Your task to perform on an android device: Open settings Image 0: 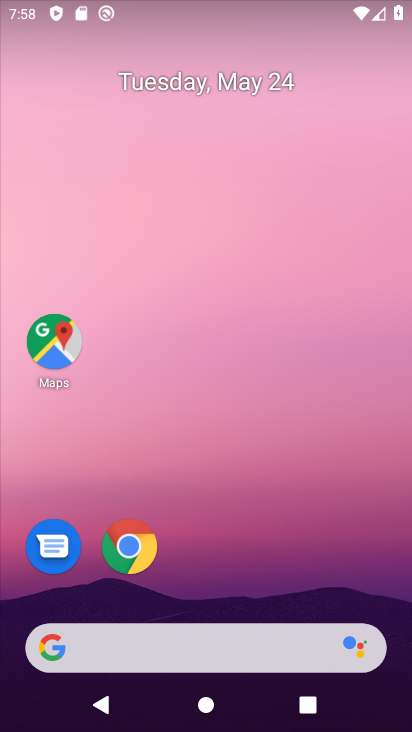
Step 0: drag from (257, 549) to (301, 23)
Your task to perform on an android device: Open settings Image 1: 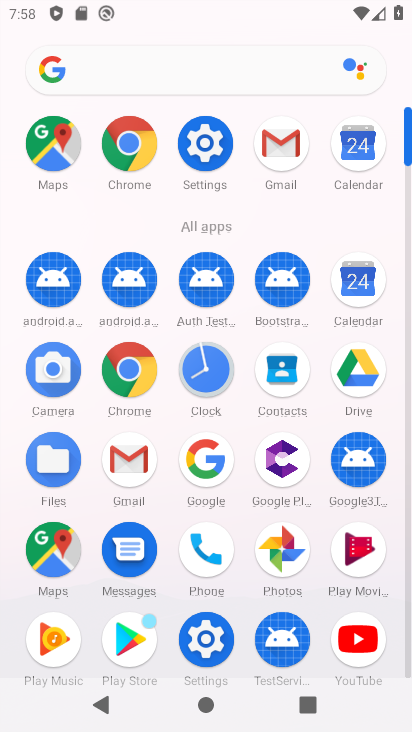
Step 1: click (223, 138)
Your task to perform on an android device: Open settings Image 2: 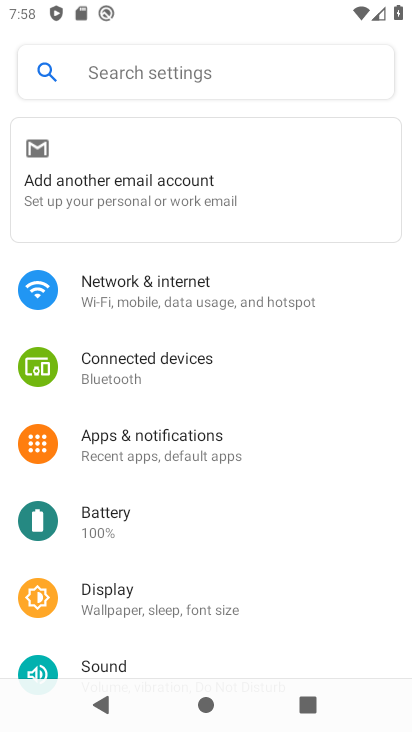
Step 2: task complete